Your task to perform on an android device: Open calendar and show me the third week of next month Image 0: 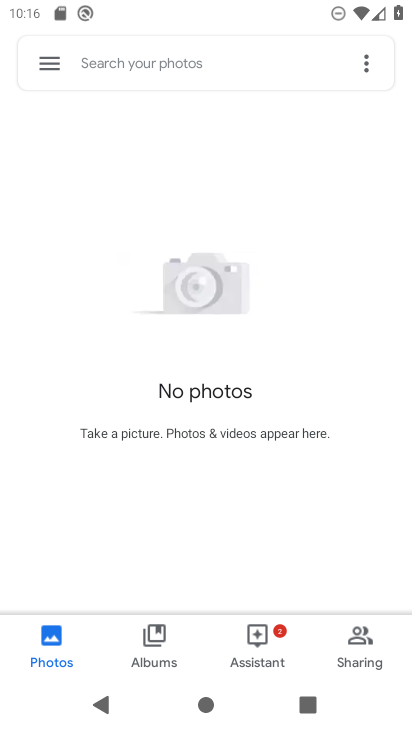
Step 0: press home button
Your task to perform on an android device: Open calendar and show me the third week of next month Image 1: 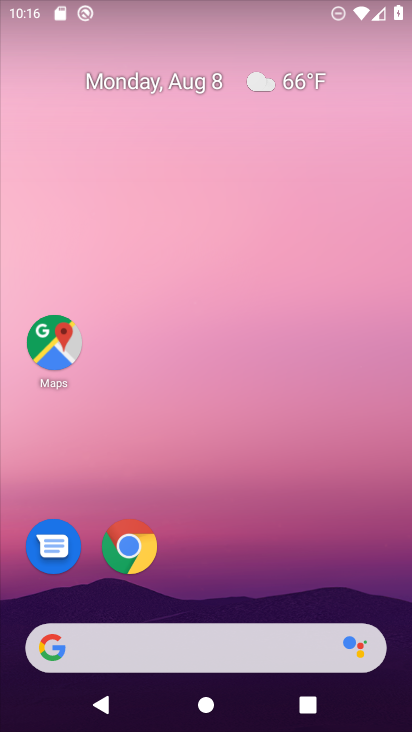
Step 1: drag from (169, 417) to (169, 177)
Your task to perform on an android device: Open calendar and show me the third week of next month Image 2: 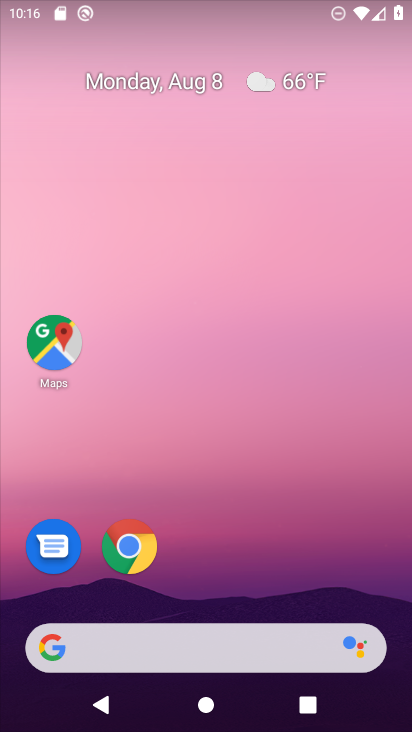
Step 2: drag from (237, 321) to (237, 82)
Your task to perform on an android device: Open calendar and show me the third week of next month Image 3: 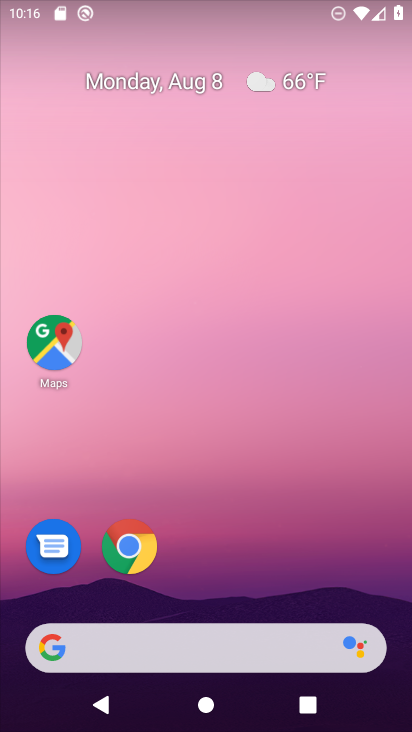
Step 3: drag from (177, 417) to (124, 9)
Your task to perform on an android device: Open calendar and show me the third week of next month Image 4: 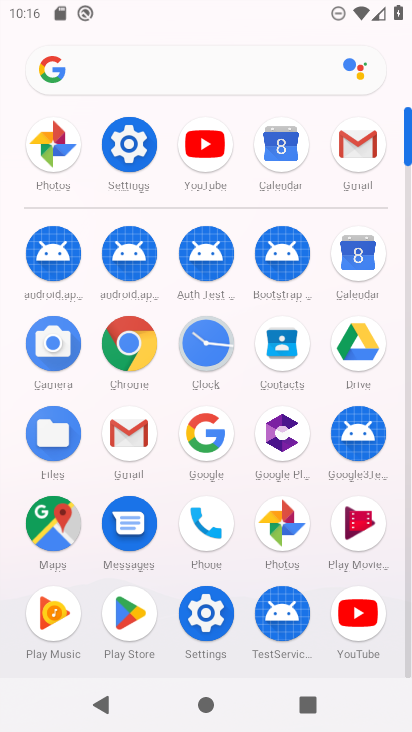
Step 4: click (355, 251)
Your task to perform on an android device: Open calendar and show me the third week of next month Image 5: 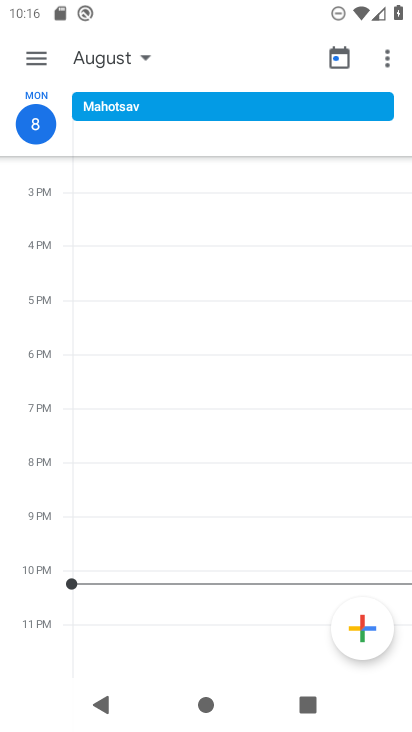
Step 5: task complete